Your task to perform on an android device: Open Google Maps Image 0: 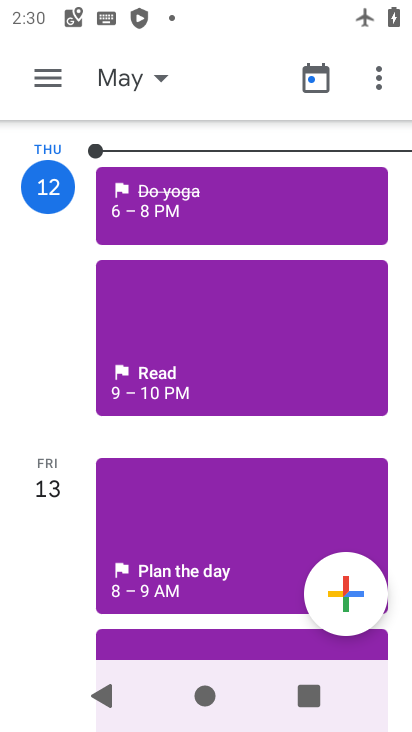
Step 0: press home button
Your task to perform on an android device: Open Google Maps Image 1: 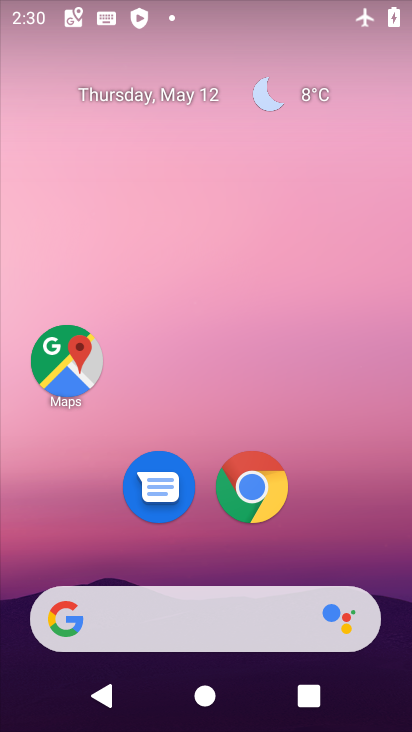
Step 1: drag from (362, 497) to (281, 114)
Your task to perform on an android device: Open Google Maps Image 2: 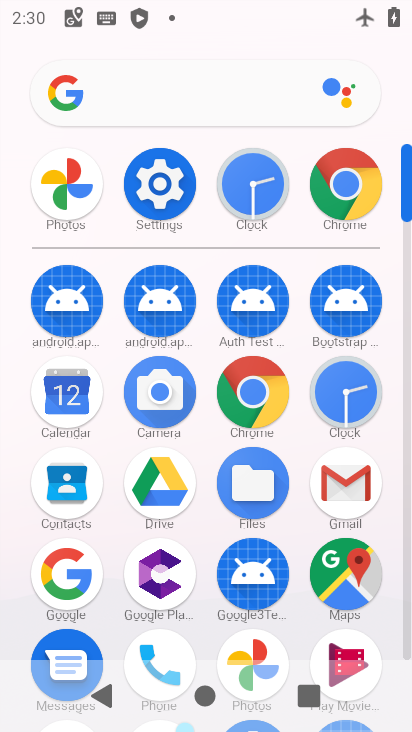
Step 2: click (339, 582)
Your task to perform on an android device: Open Google Maps Image 3: 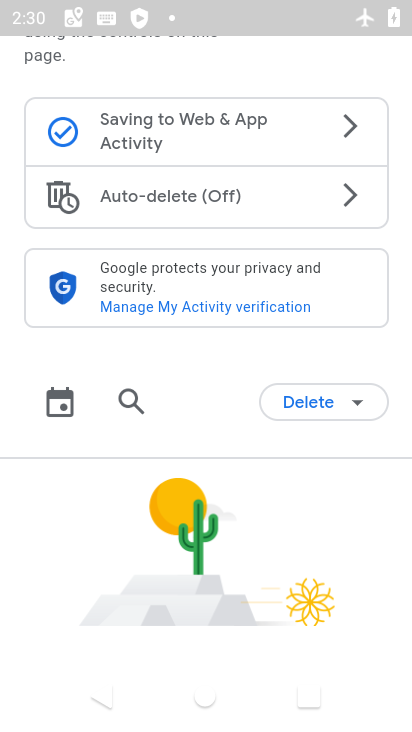
Step 3: task complete